Your task to perform on an android device: Go to accessibility settings Image 0: 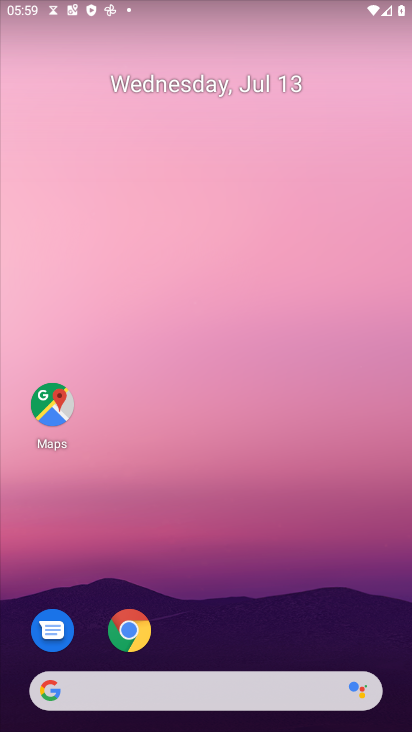
Step 0: drag from (249, 704) to (191, 36)
Your task to perform on an android device: Go to accessibility settings Image 1: 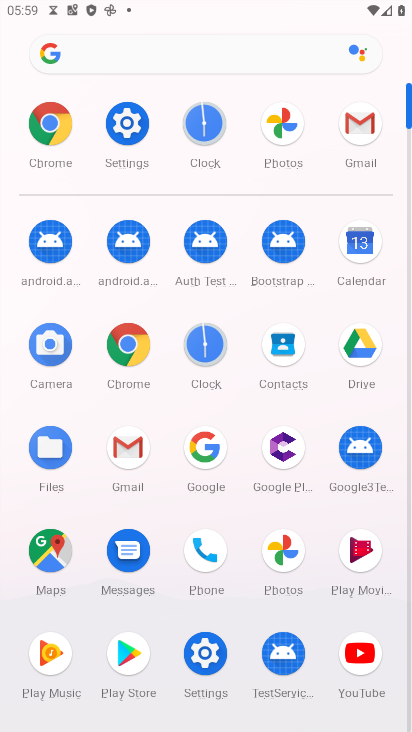
Step 1: click (133, 136)
Your task to perform on an android device: Go to accessibility settings Image 2: 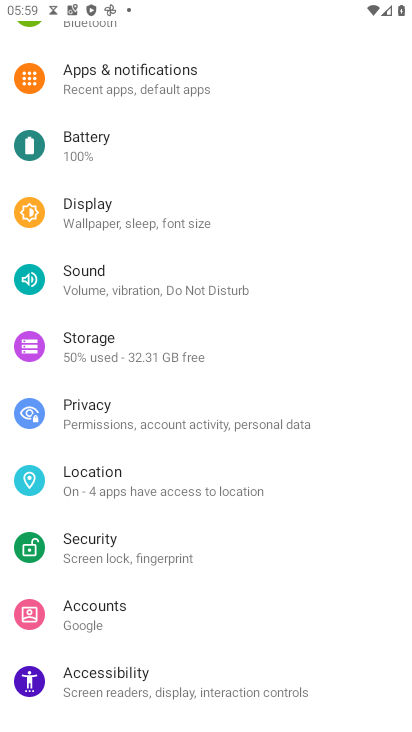
Step 2: click (232, 671)
Your task to perform on an android device: Go to accessibility settings Image 3: 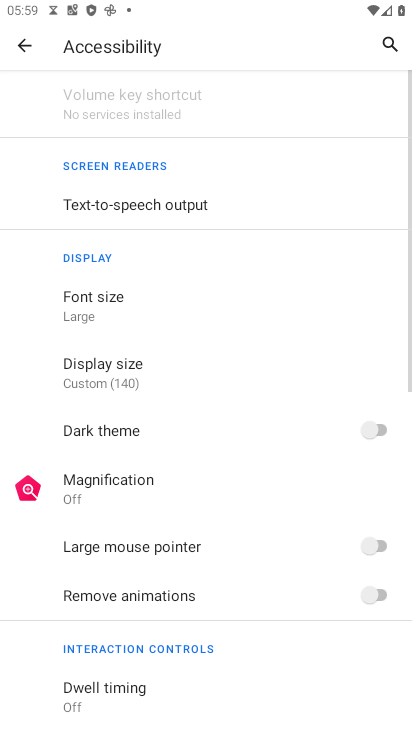
Step 3: task complete